Your task to perform on an android device: toggle sleep mode Image 0: 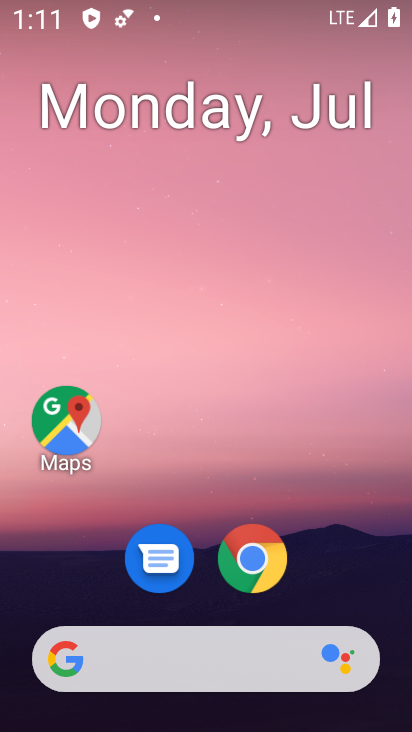
Step 0: press home button
Your task to perform on an android device: toggle sleep mode Image 1: 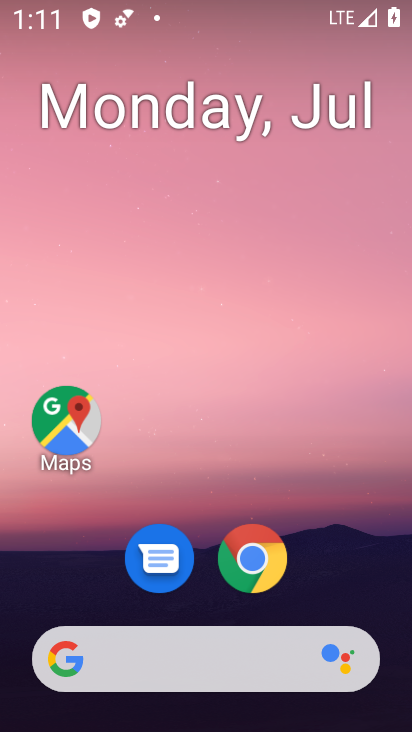
Step 1: drag from (376, 596) to (381, 106)
Your task to perform on an android device: toggle sleep mode Image 2: 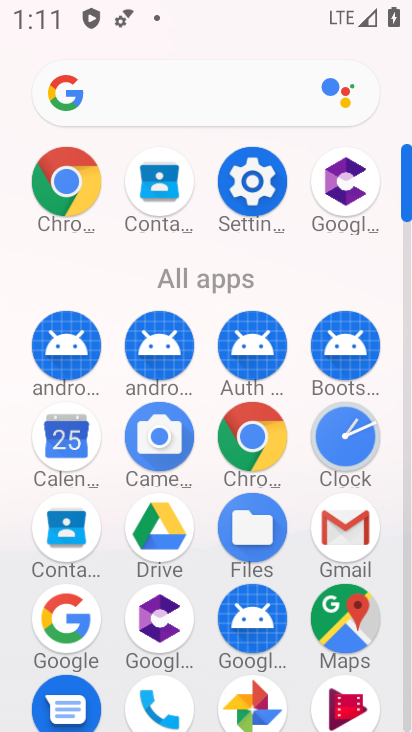
Step 2: click (265, 187)
Your task to perform on an android device: toggle sleep mode Image 3: 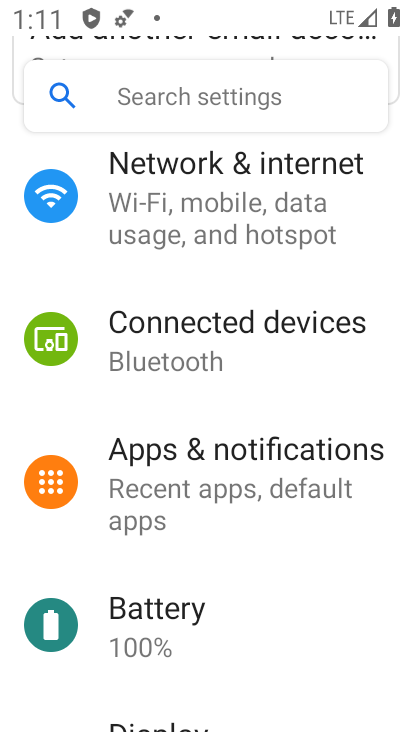
Step 3: drag from (379, 249) to (383, 362)
Your task to perform on an android device: toggle sleep mode Image 4: 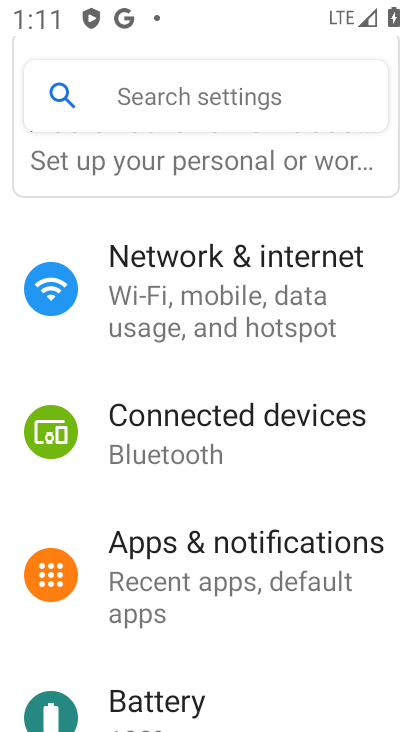
Step 4: drag from (382, 248) to (378, 440)
Your task to perform on an android device: toggle sleep mode Image 5: 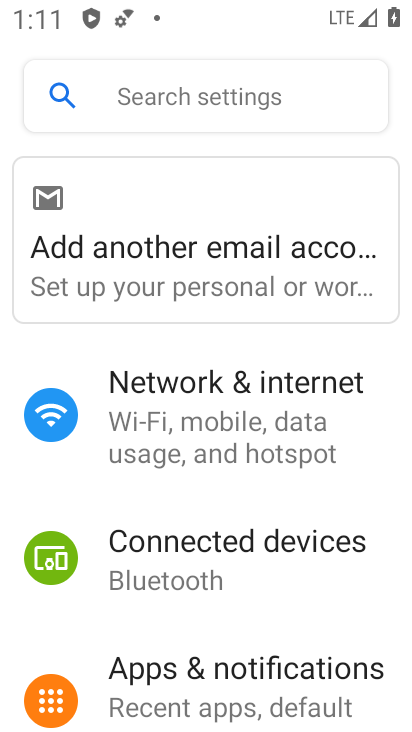
Step 5: drag from (365, 499) to (368, 376)
Your task to perform on an android device: toggle sleep mode Image 6: 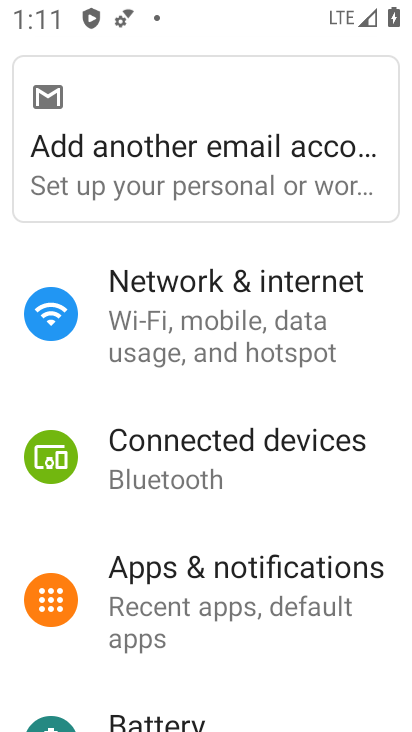
Step 6: drag from (349, 507) to (351, 393)
Your task to perform on an android device: toggle sleep mode Image 7: 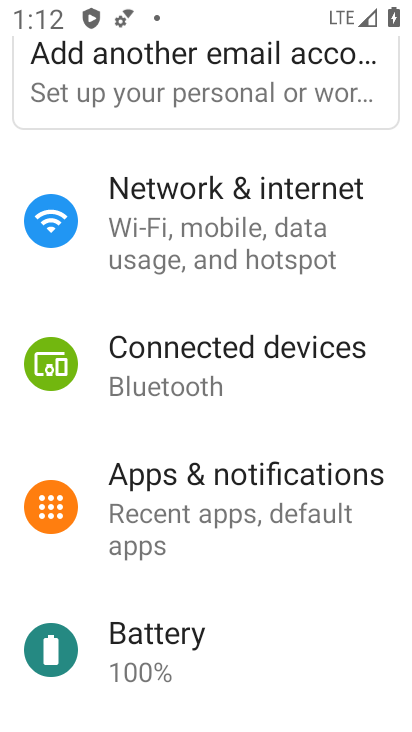
Step 7: drag from (338, 581) to (350, 374)
Your task to perform on an android device: toggle sleep mode Image 8: 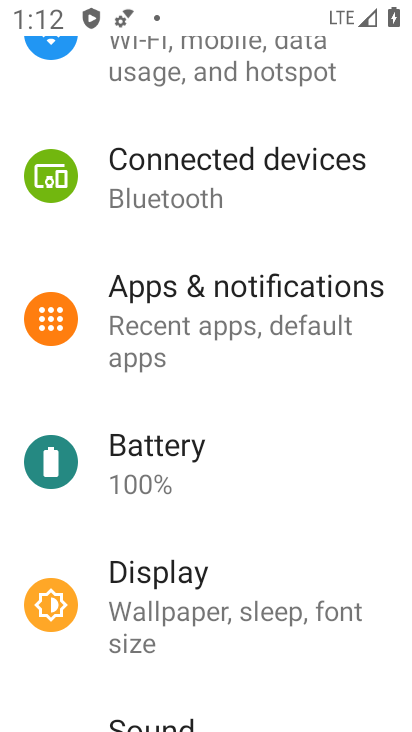
Step 8: drag from (324, 534) to (330, 375)
Your task to perform on an android device: toggle sleep mode Image 9: 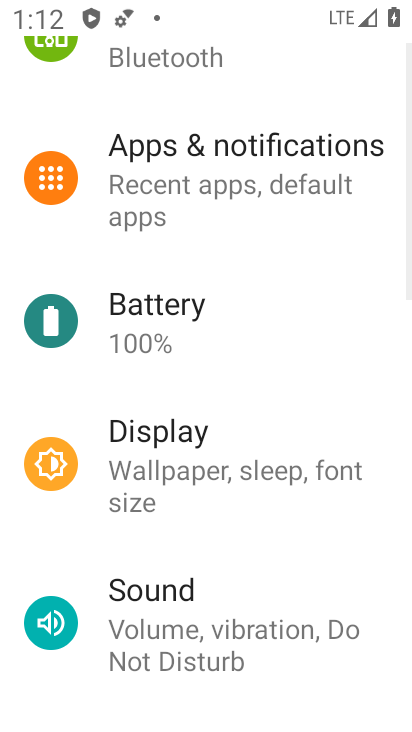
Step 9: drag from (326, 539) to (333, 319)
Your task to perform on an android device: toggle sleep mode Image 10: 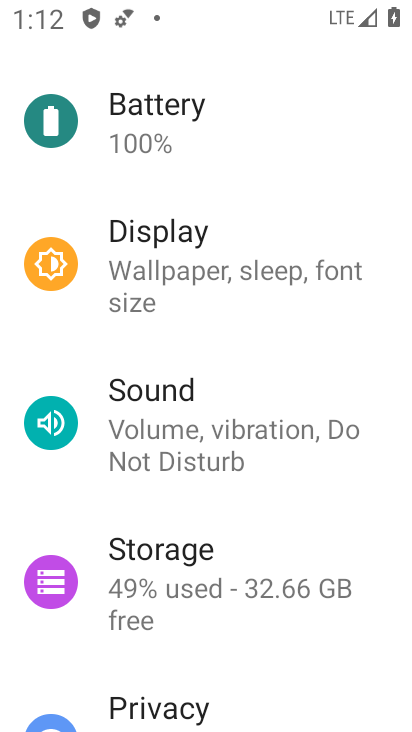
Step 10: drag from (330, 534) to (346, 342)
Your task to perform on an android device: toggle sleep mode Image 11: 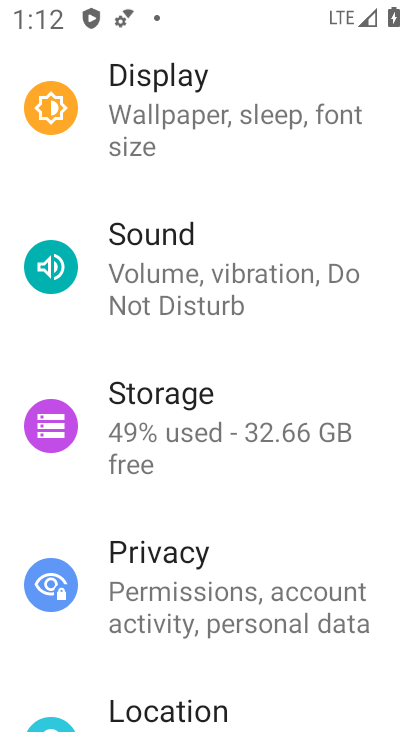
Step 11: drag from (337, 535) to (348, 315)
Your task to perform on an android device: toggle sleep mode Image 12: 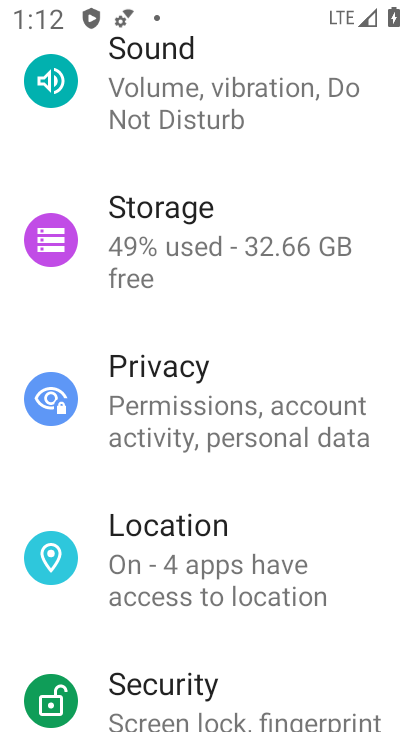
Step 12: drag from (324, 570) to (324, 429)
Your task to perform on an android device: toggle sleep mode Image 13: 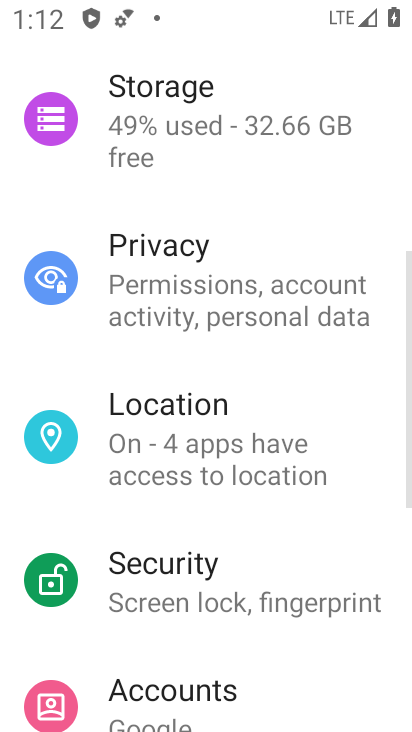
Step 13: drag from (327, 577) to (332, 364)
Your task to perform on an android device: toggle sleep mode Image 14: 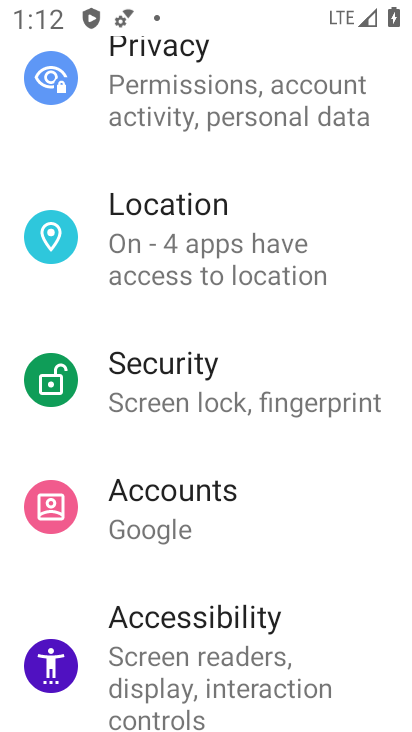
Step 14: drag from (355, 265) to (336, 433)
Your task to perform on an android device: toggle sleep mode Image 15: 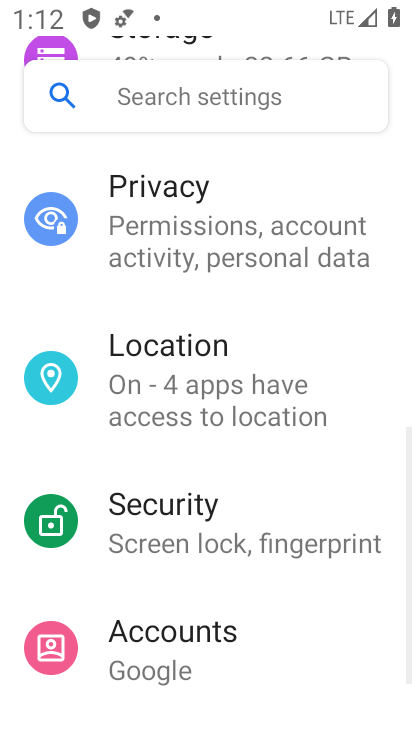
Step 15: drag from (354, 295) to (342, 454)
Your task to perform on an android device: toggle sleep mode Image 16: 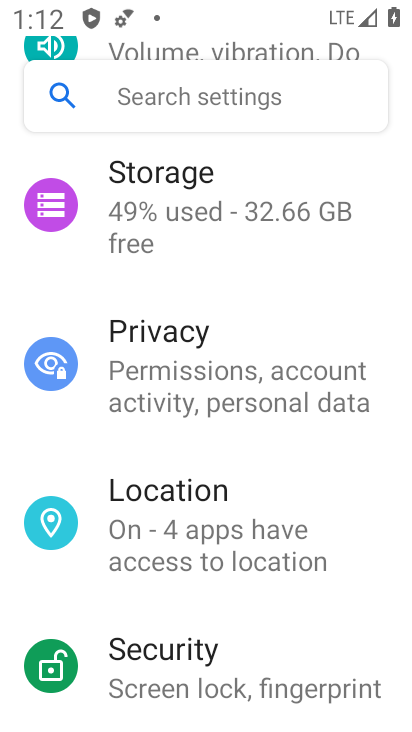
Step 16: drag from (341, 291) to (348, 464)
Your task to perform on an android device: toggle sleep mode Image 17: 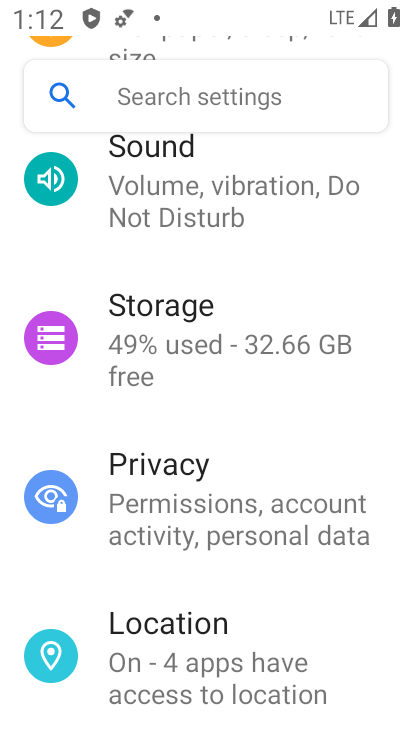
Step 17: drag from (355, 380) to (331, 554)
Your task to perform on an android device: toggle sleep mode Image 18: 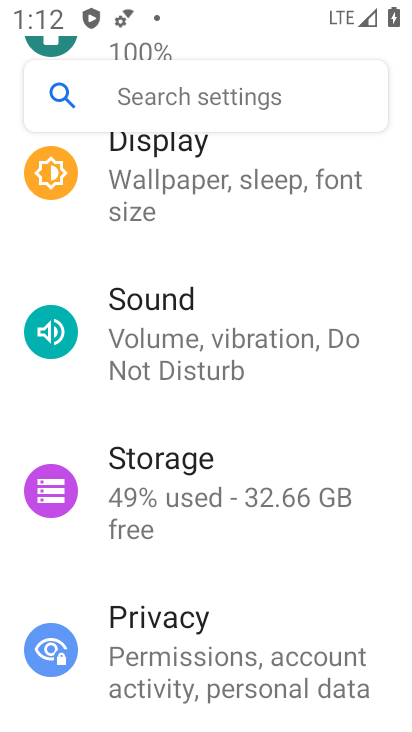
Step 18: drag from (331, 292) to (315, 490)
Your task to perform on an android device: toggle sleep mode Image 19: 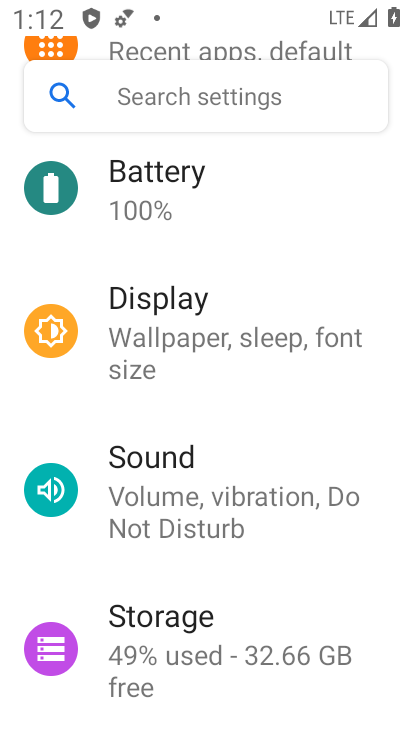
Step 19: drag from (335, 235) to (336, 407)
Your task to perform on an android device: toggle sleep mode Image 20: 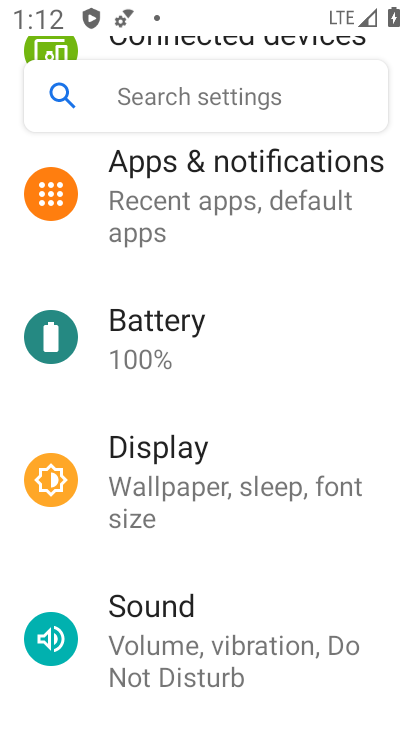
Step 20: click (299, 491)
Your task to perform on an android device: toggle sleep mode Image 21: 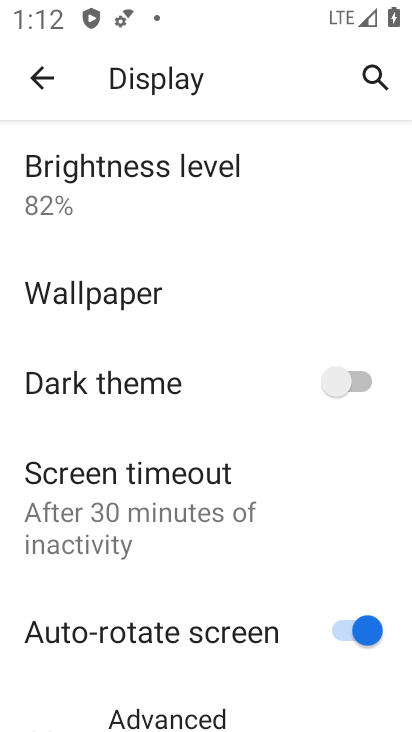
Step 21: drag from (285, 571) to (295, 419)
Your task to perform on an android device: toggle sleep mode Image 22: 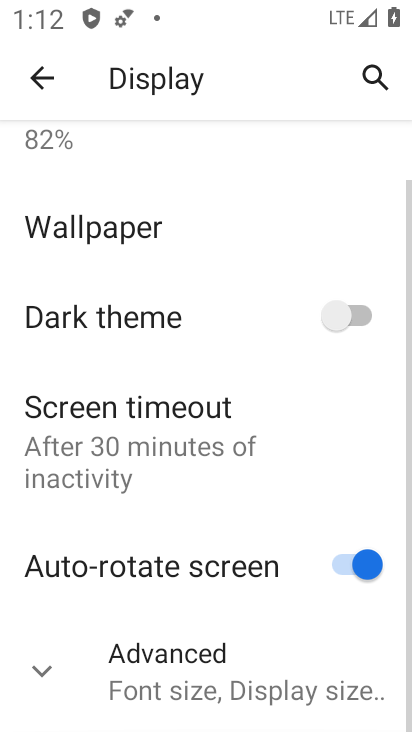
Step 22: click (268, 650)
Your task to perform on an android device: toggle sleep mode Image 23: 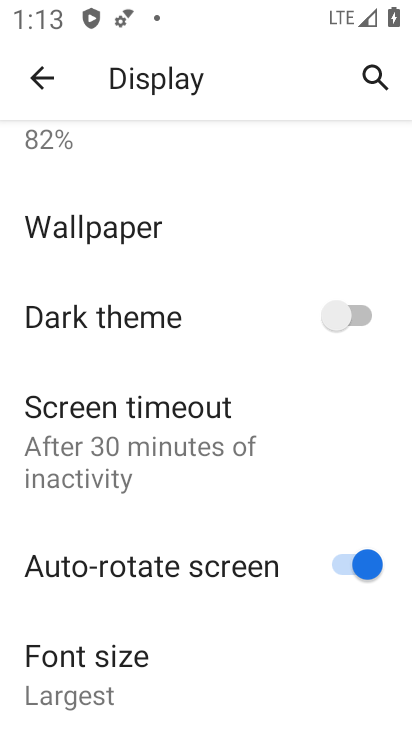
Step 23: task complete